Your task to perform on an android device: Open privacy settings Image 0: 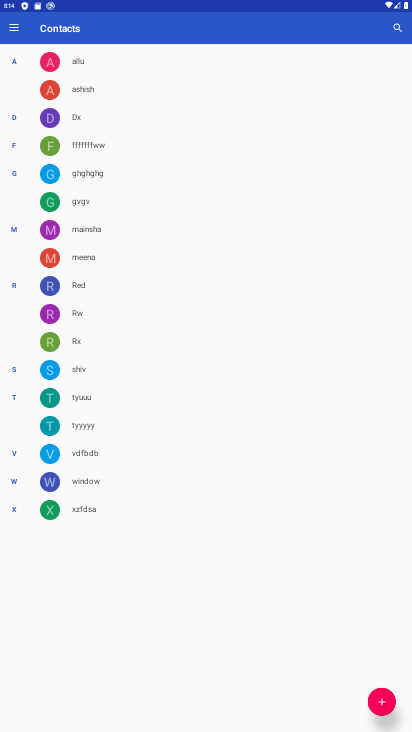
Step 0: press home button
Your task to perform on an android device: Open privacy settings Image 1: 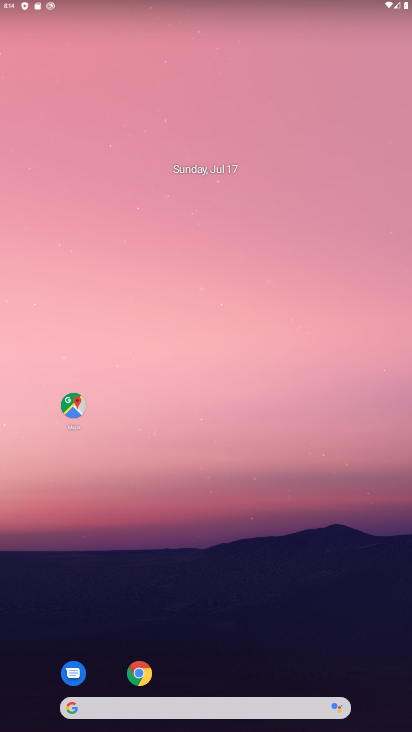
Step 1: drag from (258, 633) to (230, 87)
Your task to perform on an android device: Open privacy settings Image 2: 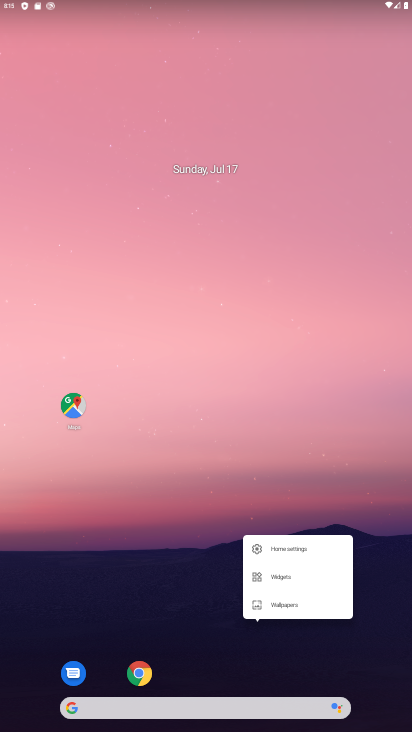
Step 2: click (191, 553)
Your task to perform on an android device: Open privacy settings Image 3: 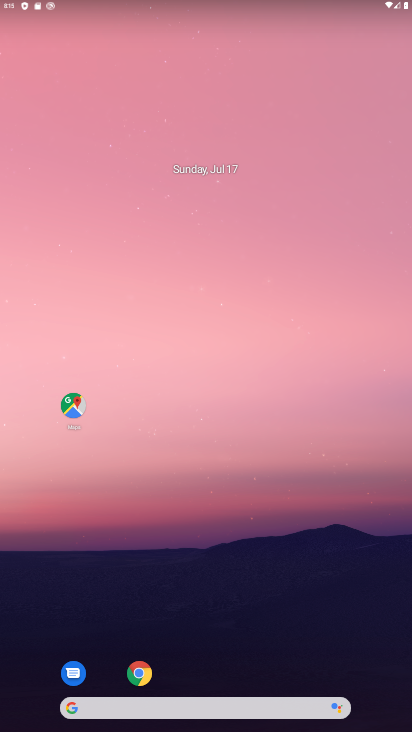
Step 3: drag from (200, 596) to (224, 0)
Your task to perform on an android device: Open privacy settings Image 4: 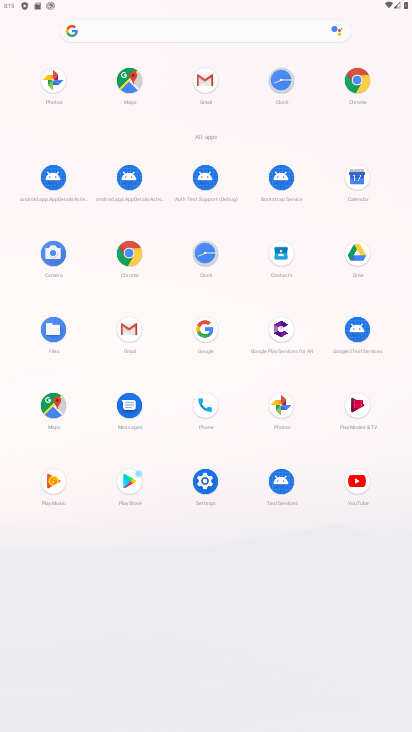
Step 4: click (208, 492)
Your task to perform on an android device: Open privacy settings Image 5: 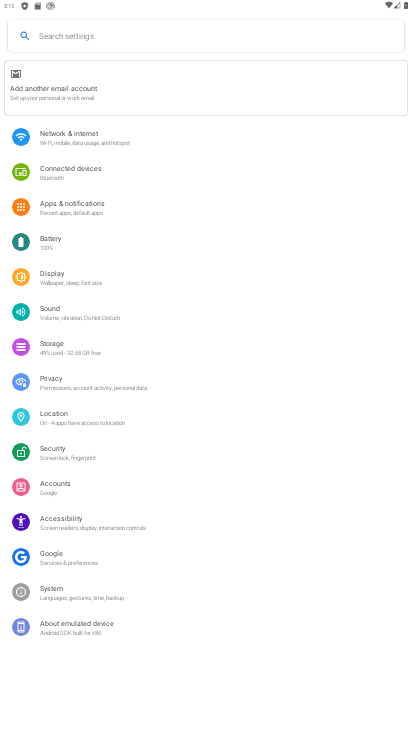
Step 5: click (64, 389)
Your task to perform on an android device: Open privacy settings Image 6: 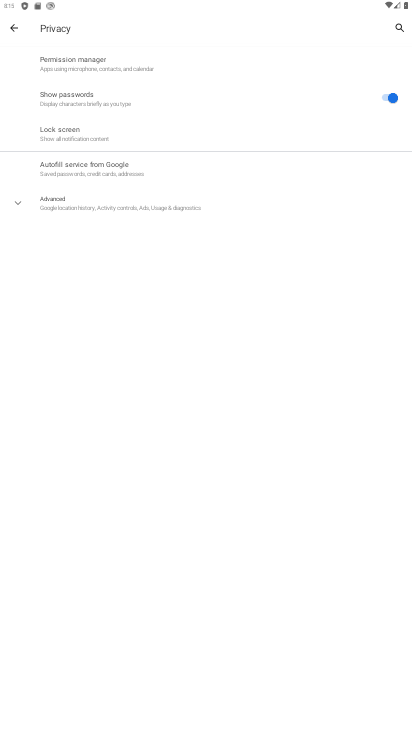
Step 6: task complete